Your task to perform on an android device: Go to eBay Image 0: 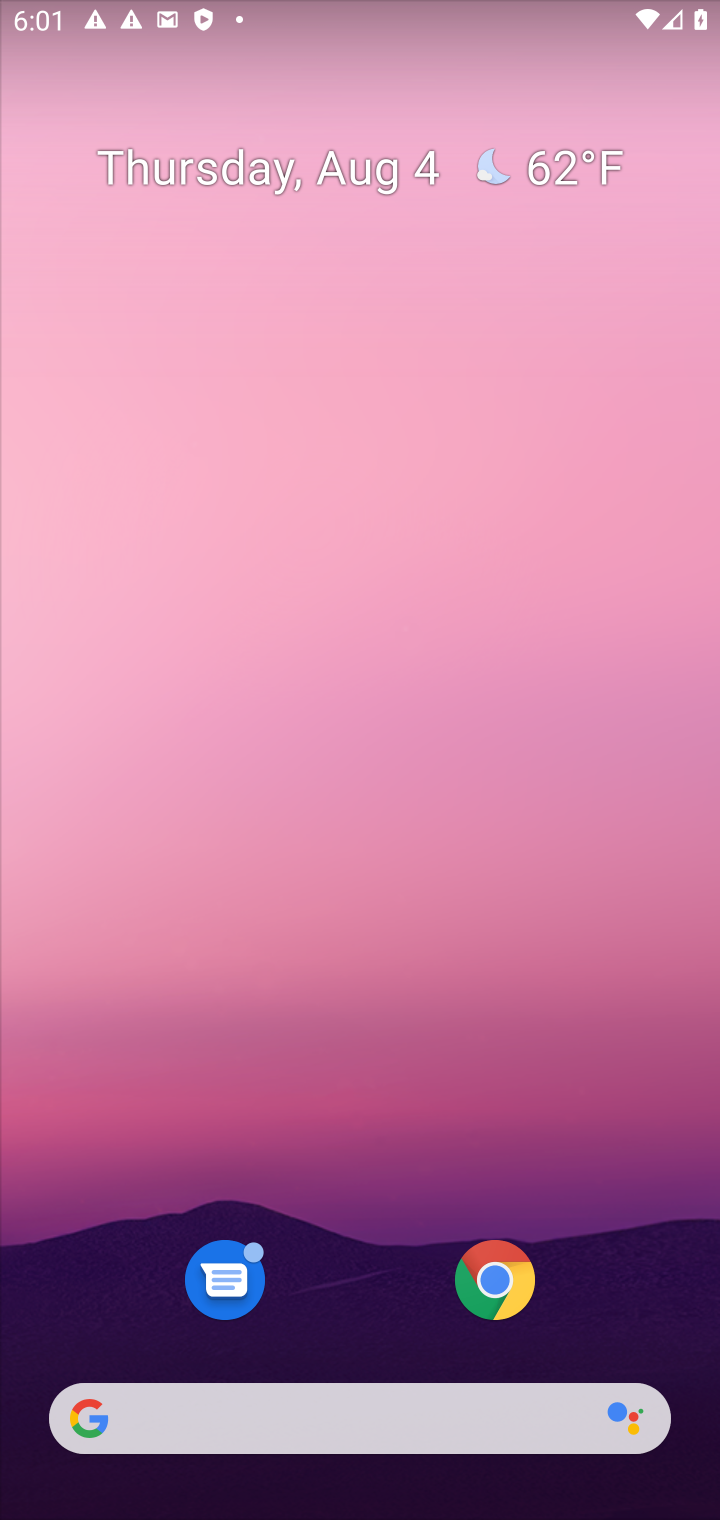
Step 0: click (530, 1276)
Your task to perform on an android device: Go to eBay Image 1: 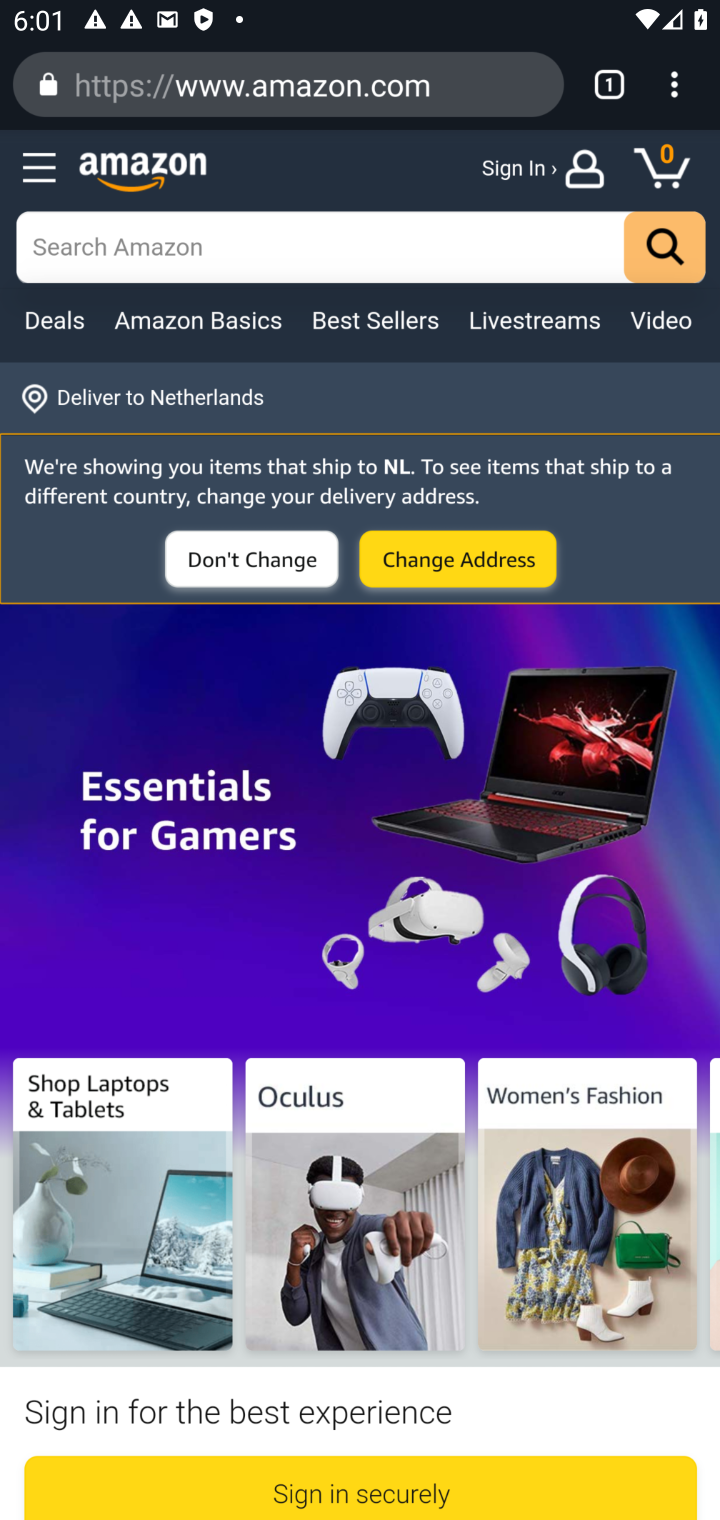
Step 1: click (482, 1276)
Your task to perform on an android device: Go to eBay Image 2: 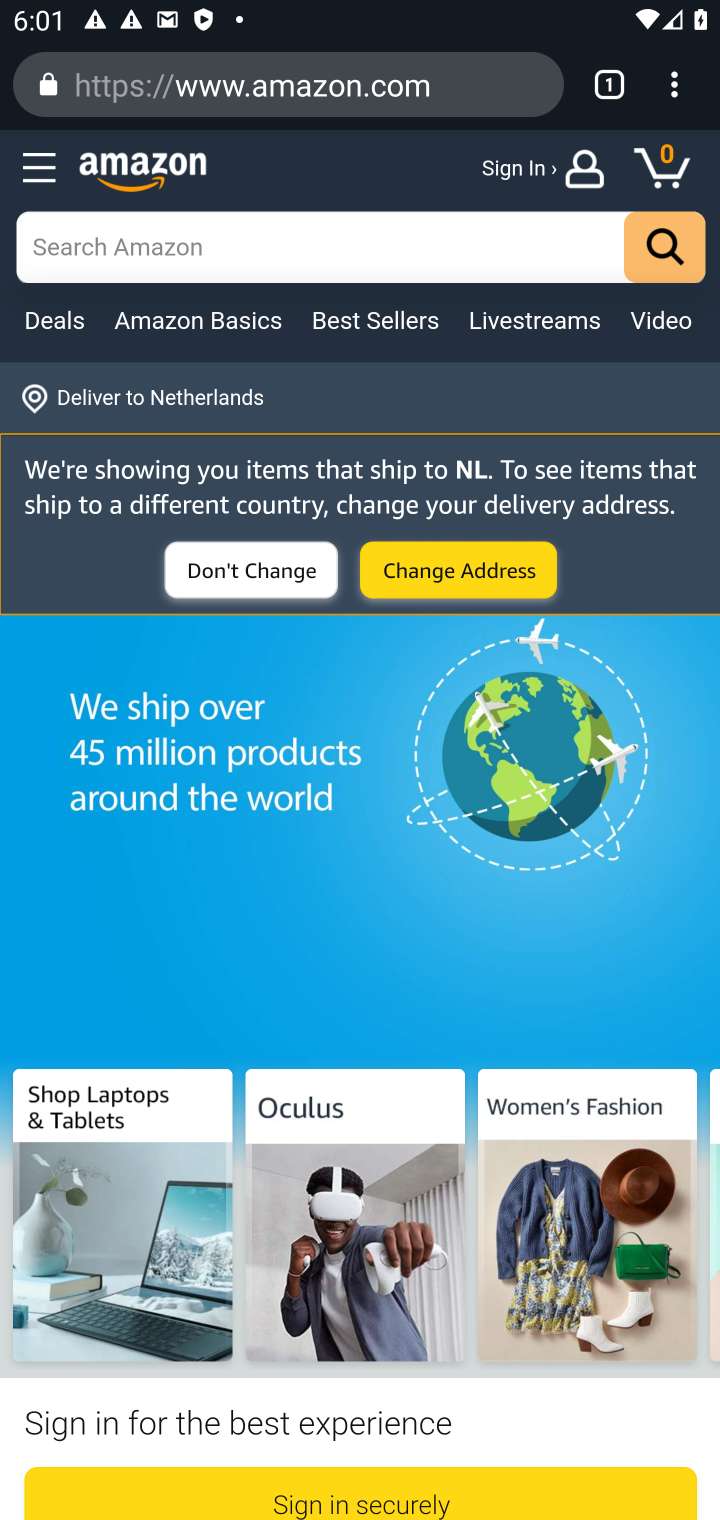
Step 2: press back button
Your task to perform on an android device: Go to eBay Image 3: 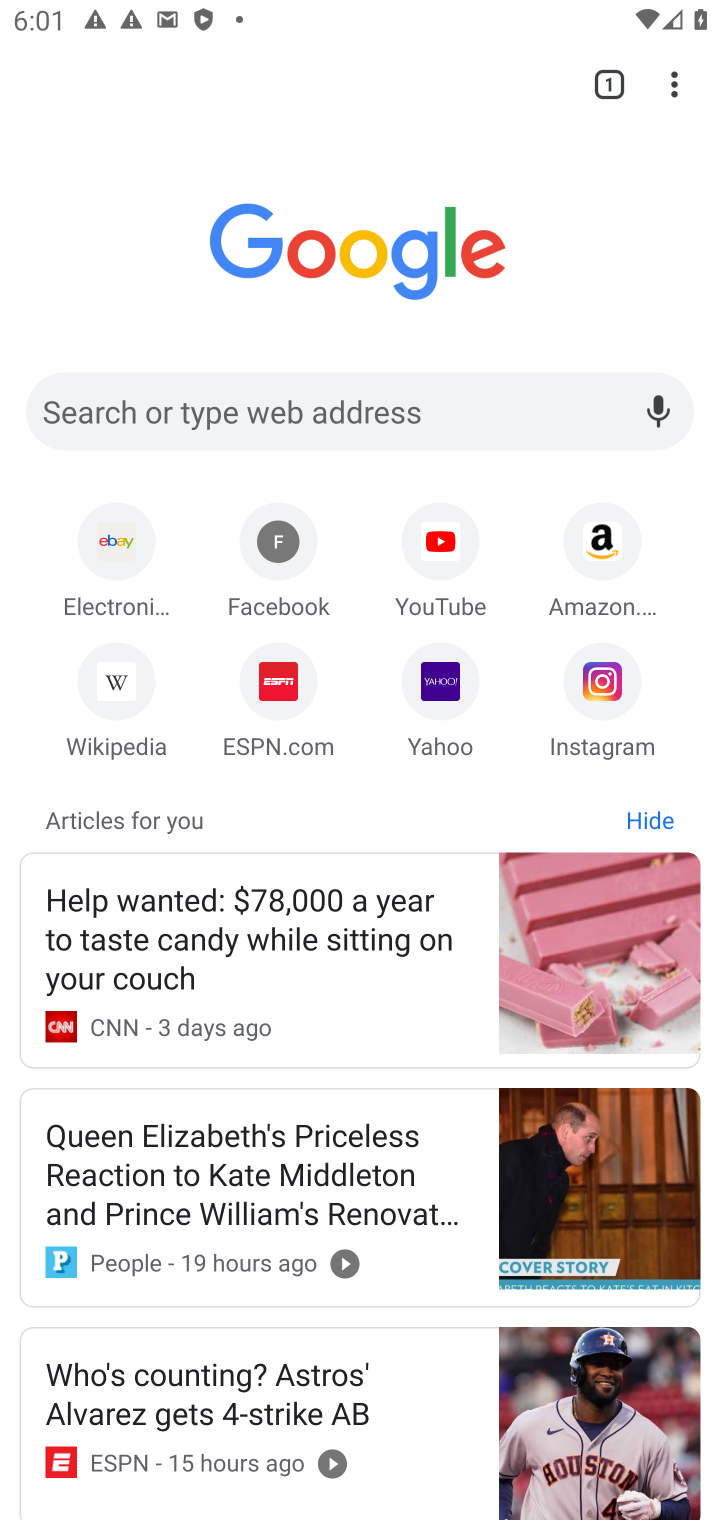
Step 3: click (91, 559)
Your task to perform on an android device: Go to eBay Image 4: 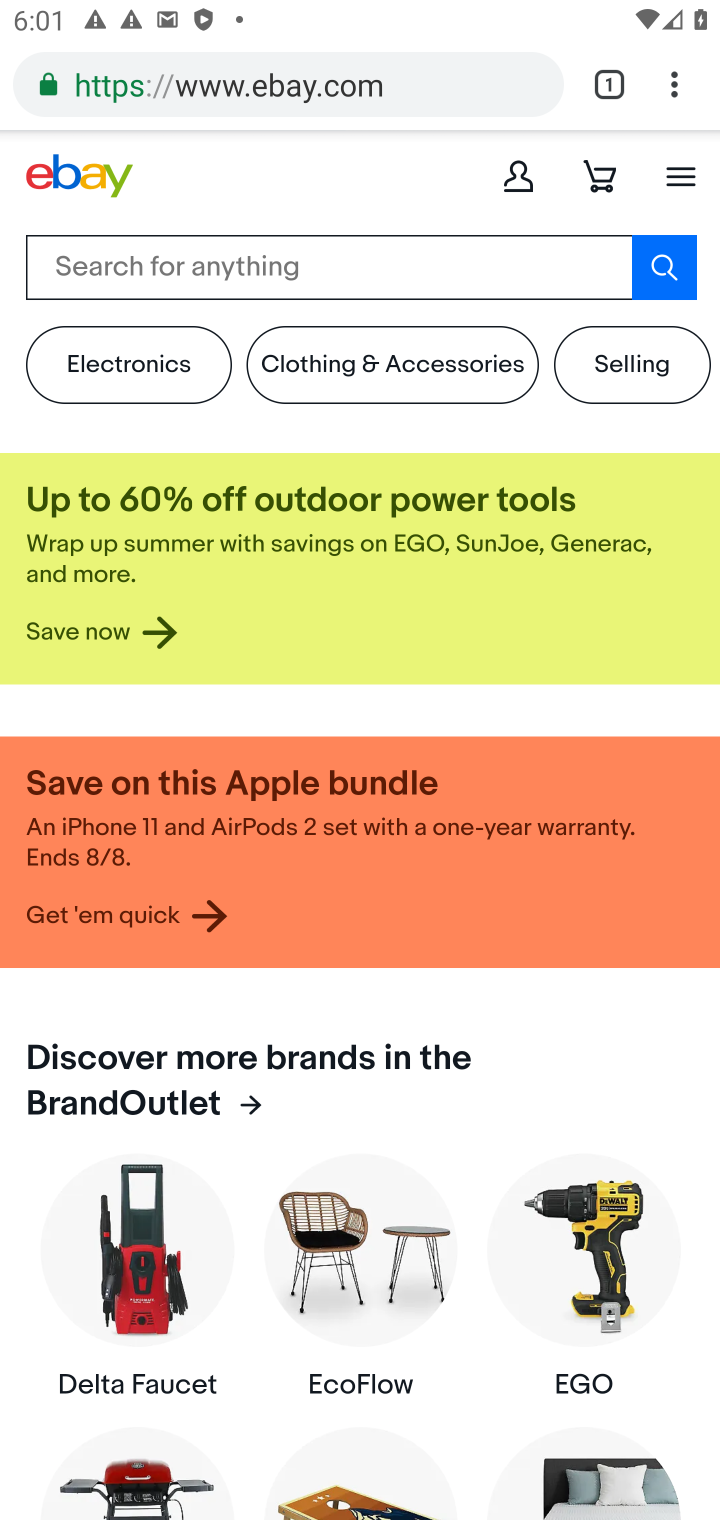
Step 4: task complete